Your task to perform on an android device: read, delete, or share a saved page in the chrome app Image 0: 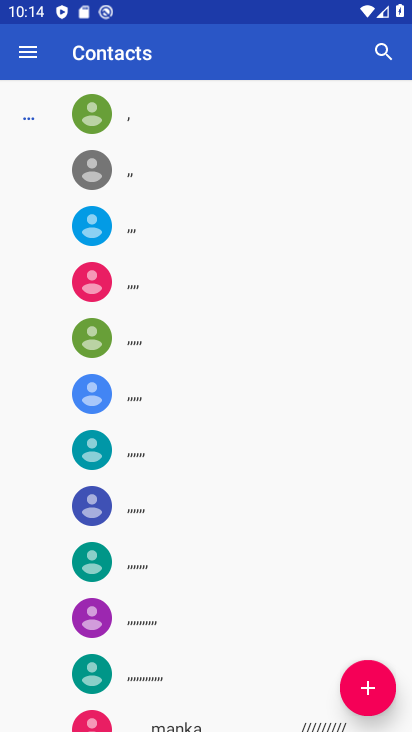
Step 0: task complete